Your task to perform on an android device: Go to notification settings Image 0: 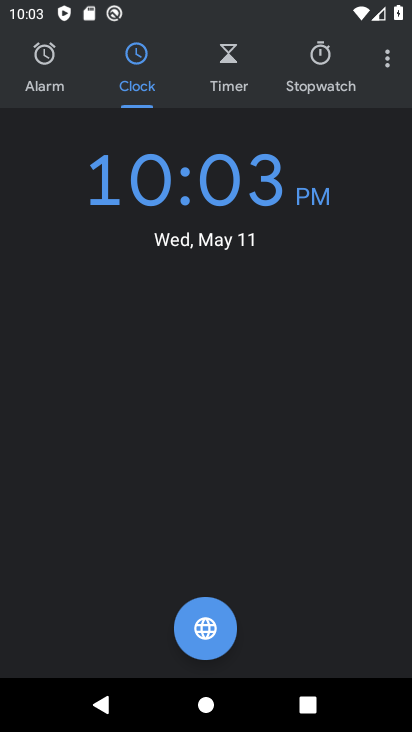
Step 0: press home button
Your task to perform on an android device: Go to notification settings Image 1: 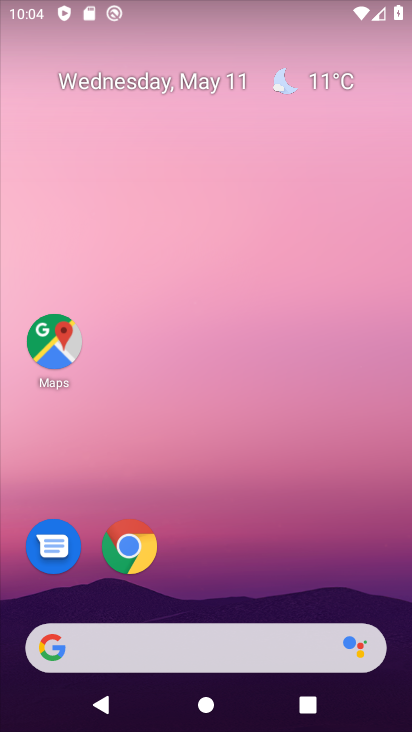
Step 1: drag from (273, 564) to (291, 62)
Your task to perform on an android device: Go to notification settings Image 2: 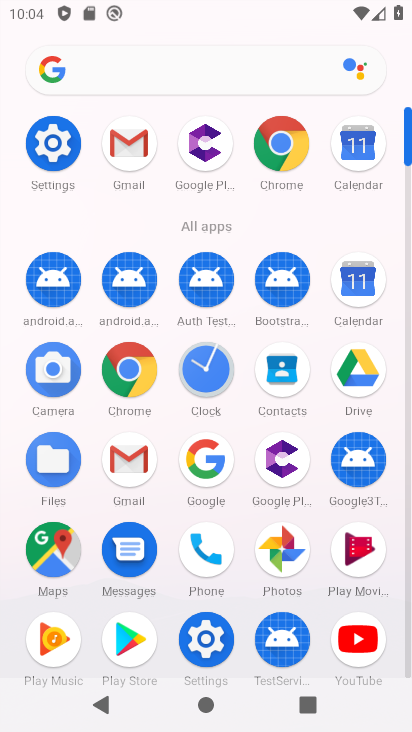
Step 2: drag from (244, 220) to (246, 39)
Your task to perform on an android device: Go to notification settings Image 3: 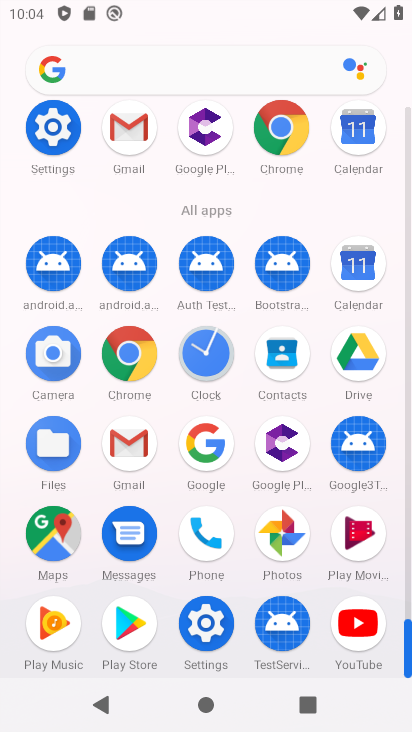
Step 3: click (203, 631)
Your task to perform on an android device: Go to notification settings Image 4: 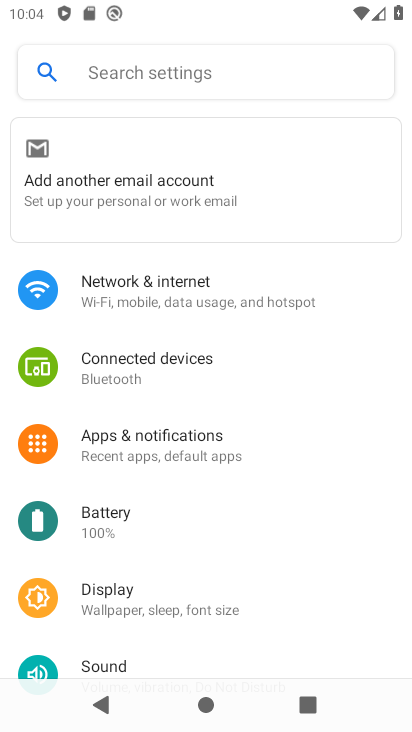
Step 4: click (171, 443)
Your task to perform on an android device: Go to notification settings Image 5: 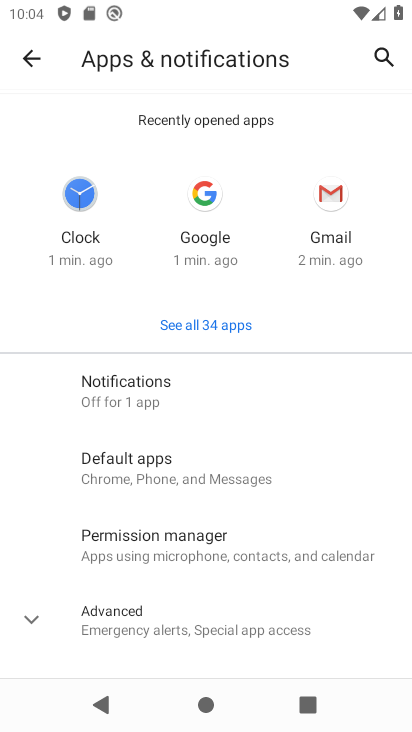
Step 5: click (122, 390)
Your task to perform on an android device: Go to notification settings Image 6: 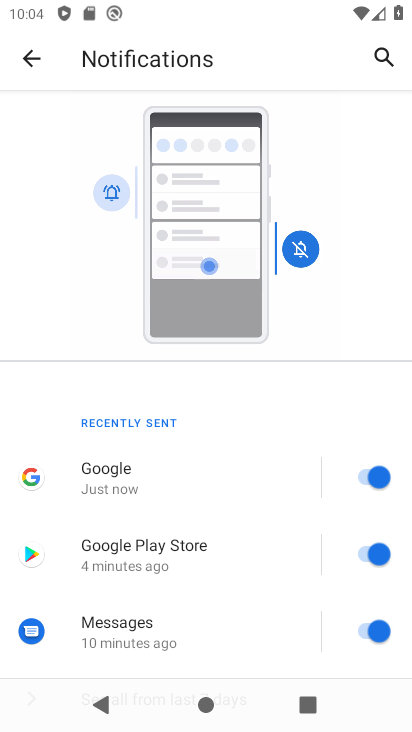
Step 6: task complete